Your task to perform on an android device: Open Yahoo.com Image 0: 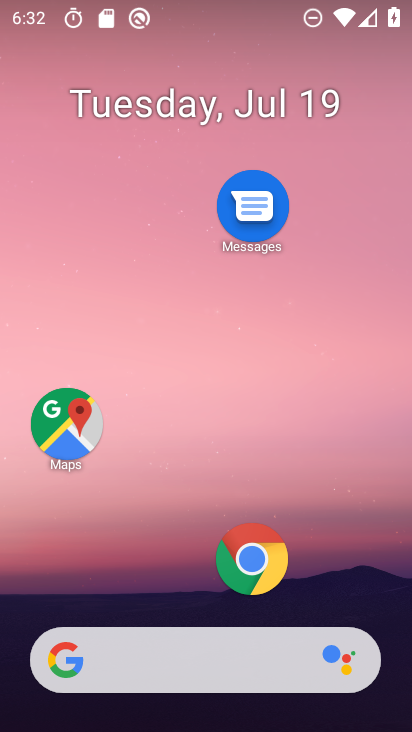
Step 0: click (230, 571)
Your task to perform on an android device: Open Yahoo.com Image 1: 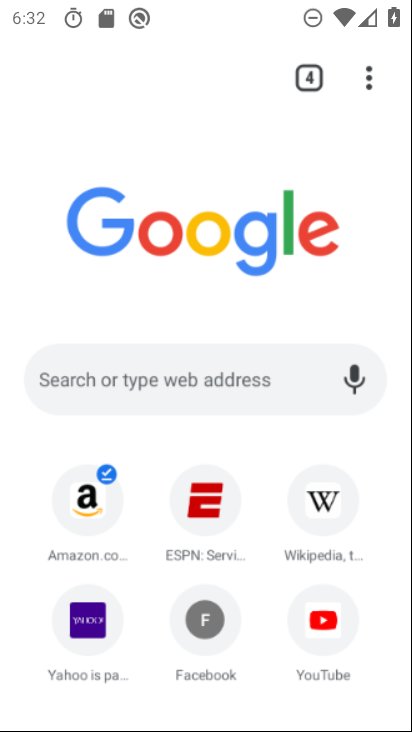
Step 1: click (100, 626)
Your task to perform on an android device: Open Yahoo.com Image 2: 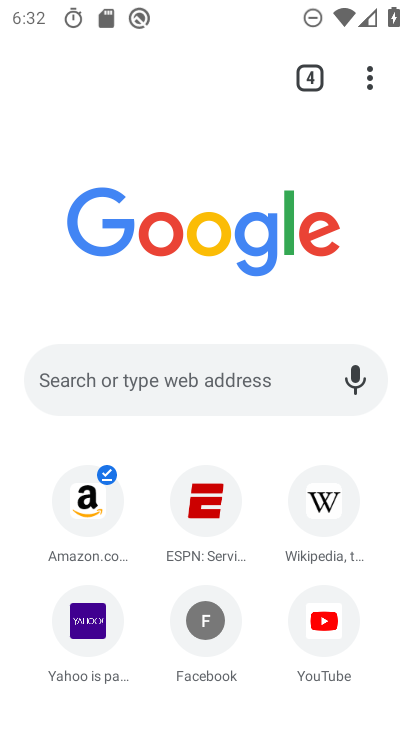
Step 2: click (102, 620)
Your task to perform on an android device: Open Yahoo.com Image 3: 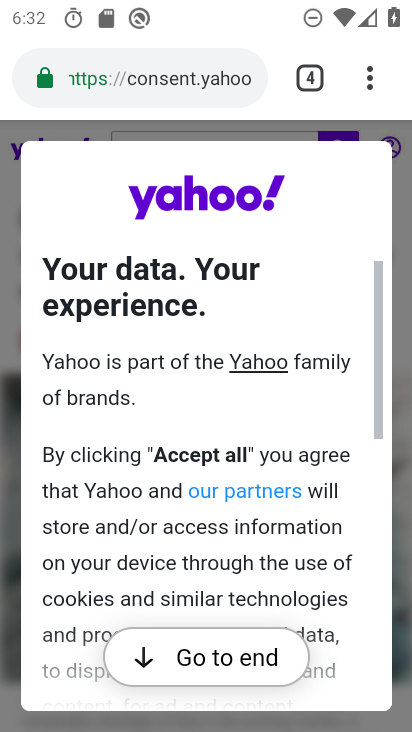
Step 3: task complete